Your task to perform on an android device: Open settings Image 0: 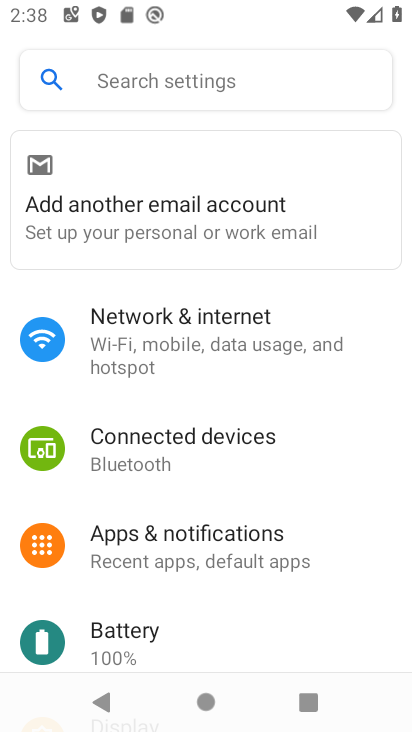
Step 0: task complete